Your task to perform on an android device: Open network settings Image 0: 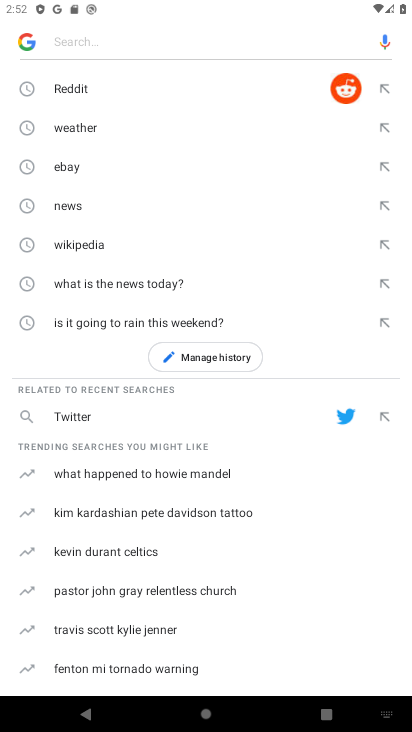
Step 0: drag from (155, 65) to (204, 438)
Your task to perform on an android device: Open network settings Image 1: 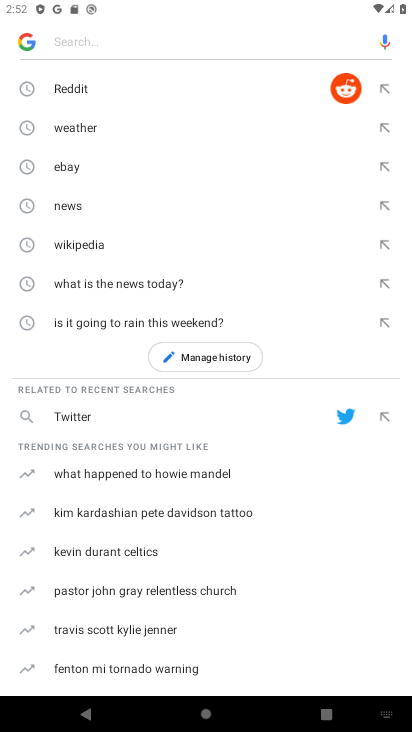
Step 1: drag from (211, 8) to (266, 658)
Your task to perform on an android device: Open network settings Image 2: 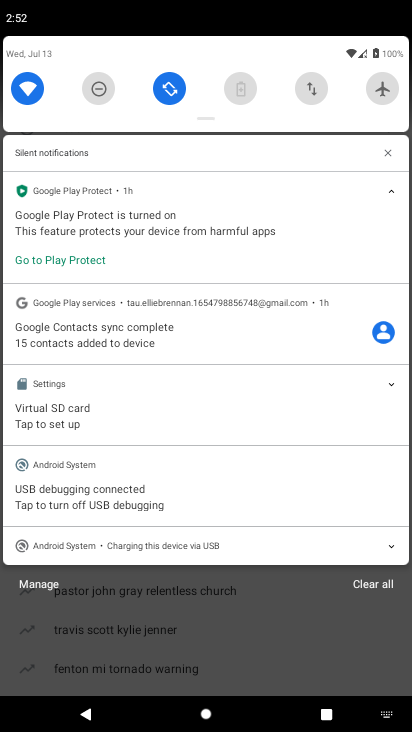
Step 2: click (303, 89)
Your task to perform on an android device: Open network settings Image 3: 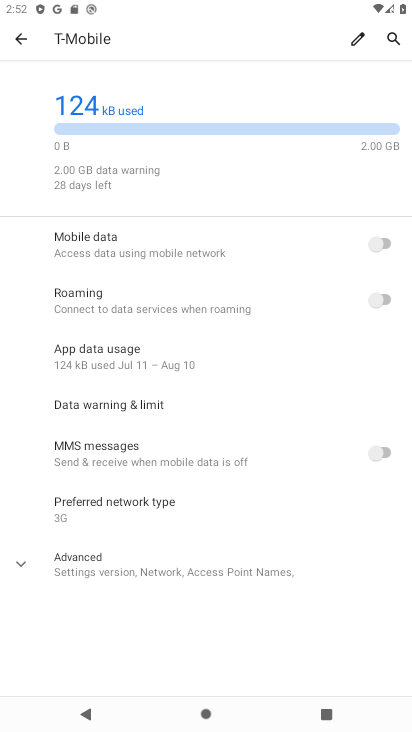
Step 3: task complete